Your task to perform on an android device: Open accessibility settings Image 0: 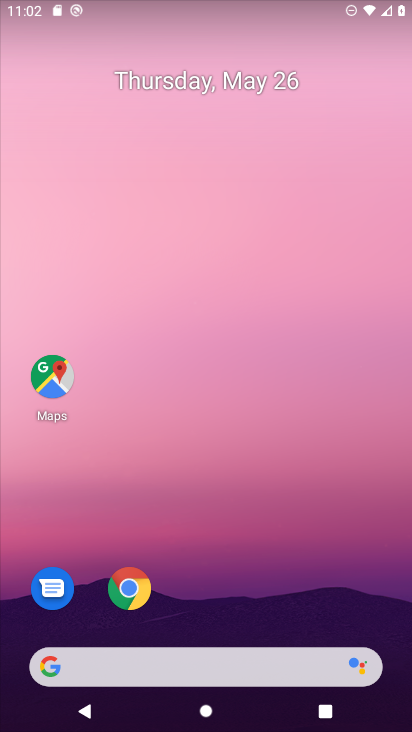
Step 0: drag from (349, 602) to (290, 111)
Your task to perform on an android device: Open accessibility settings Image 1: 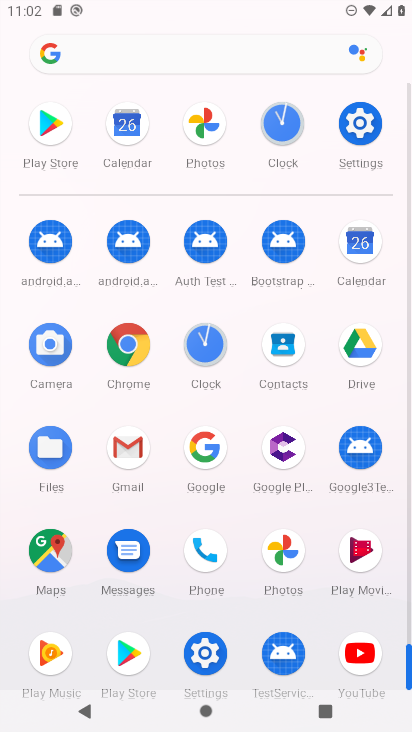
Step 1: click (207, 653)
Your task to perform on an android device: Open accessibility settings Image 2: 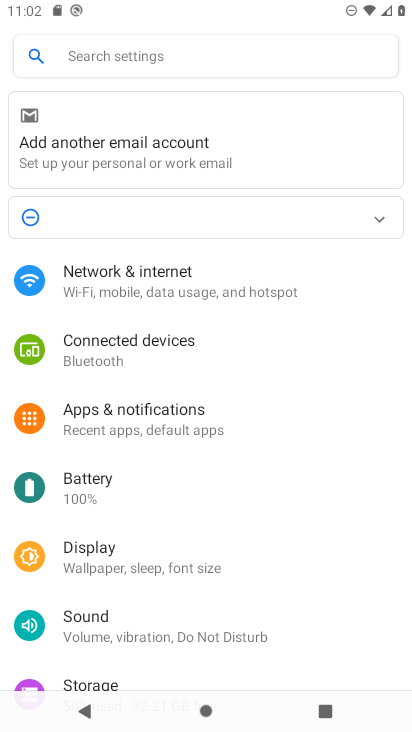
Step 2: drag from (347, 673) to (289, 199)
Your task to perform on an android device: Open accessibility settings Image 3: 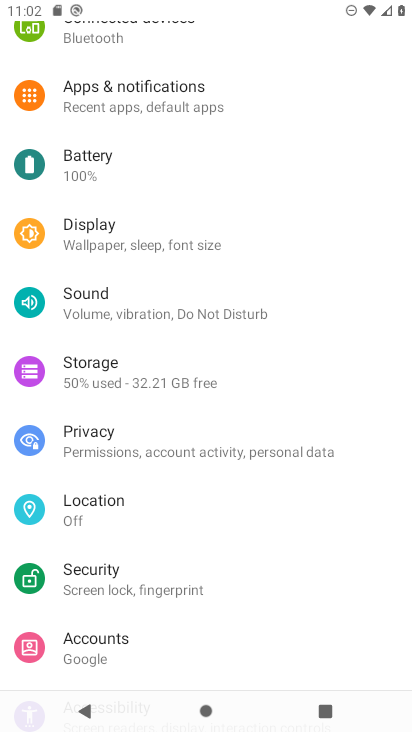
Step 3: drag from (280, 632) to (280, 224)
Your task to perform on an android device: Open accessibility settings Image 4: 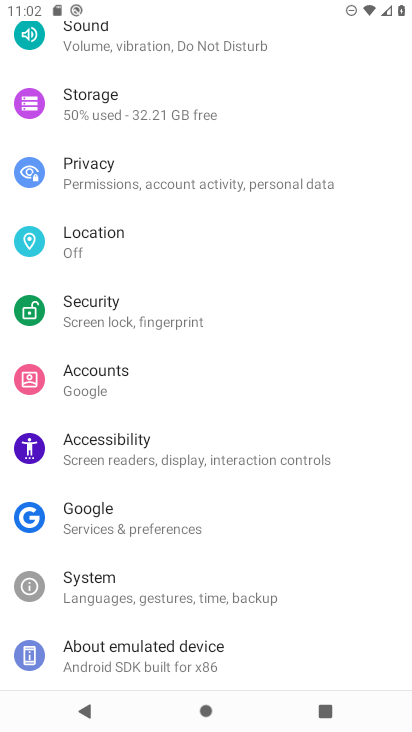
Step 4: click (92, 471)
Your task to perform on an android device: Open accessibility settings Image 5: 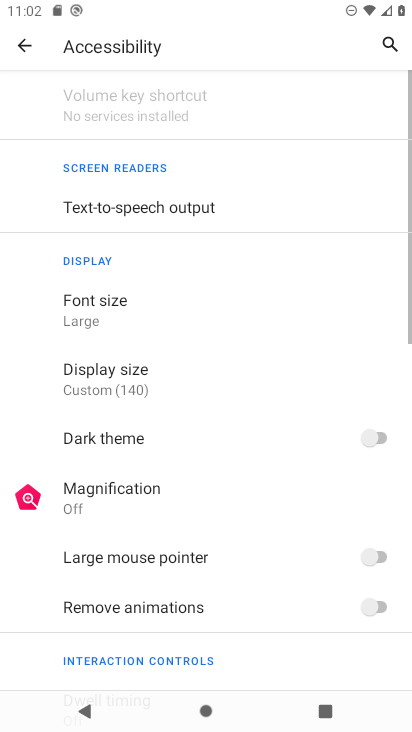
Step 5: task complete